Your task to perform on an android device: What's on my calendar tomorrow? Image 0: 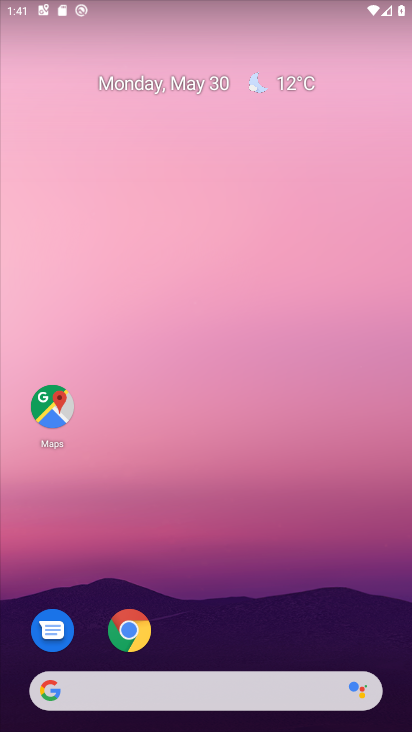
Step 0: drag from (189, 689) to (175, 166)
Your task to perform on an android device: What's on my calendar tomorrow? Image 1: 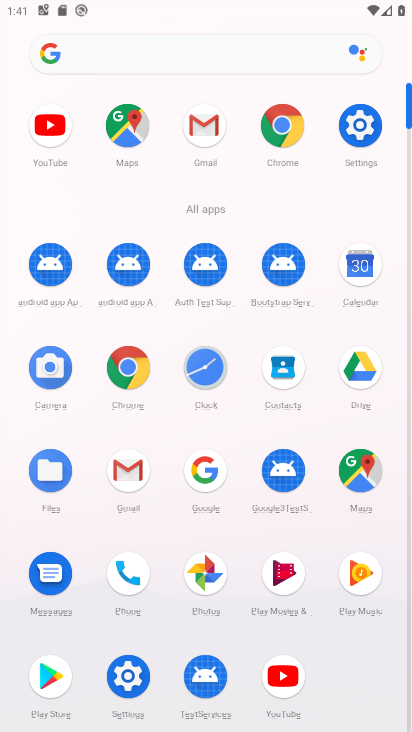
Step 1: click (349, 271)
Your task to perform on an android device: What's on my calendar tomorrow? Image 2: 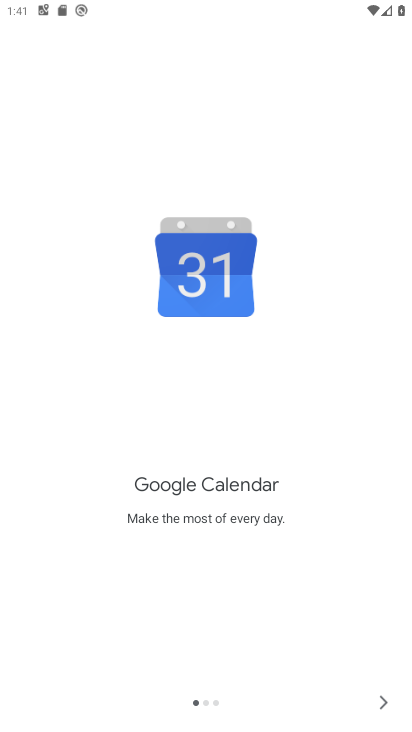
Step 2: click (383, 695)
Your task to perform on an android device: What's on my calendar tomorrow? Image 3: 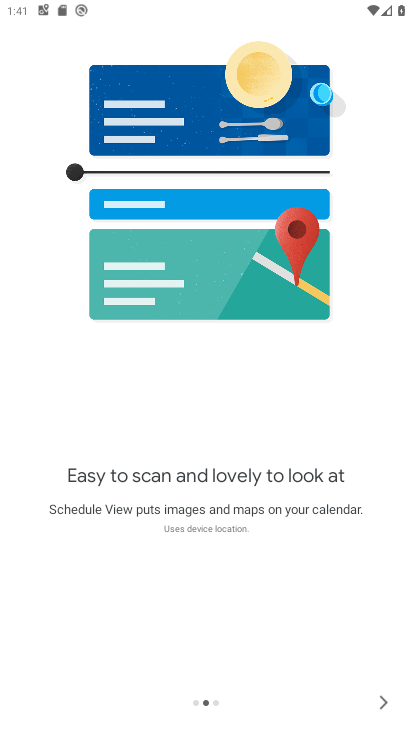
Step 3: click (383, 695)
Your task to perform on an android device: What's on my calendar tomorrow? Image 4: 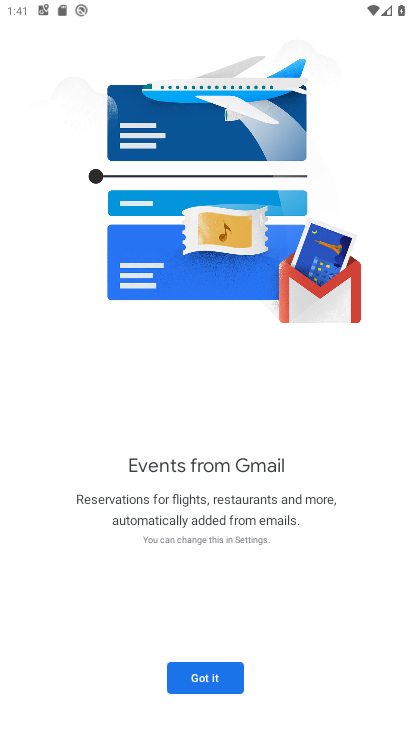
Step 4: click (236, 682)
Your task to perform on an android device: What's on my calendar tomorrow? Image 5: 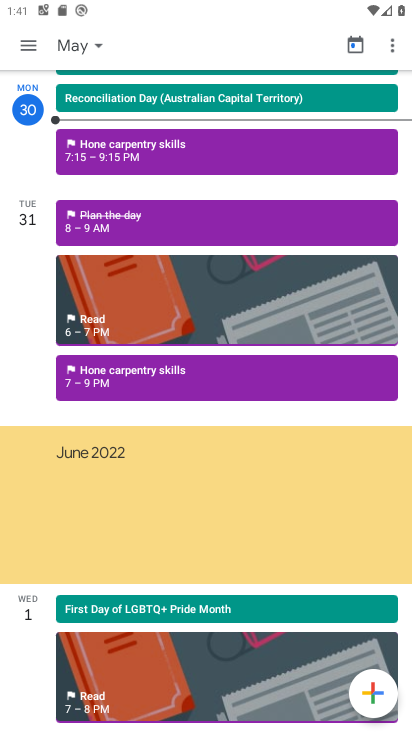
Step 5: task complete